Your task to perform on an android device: toggle wifi Image 0: 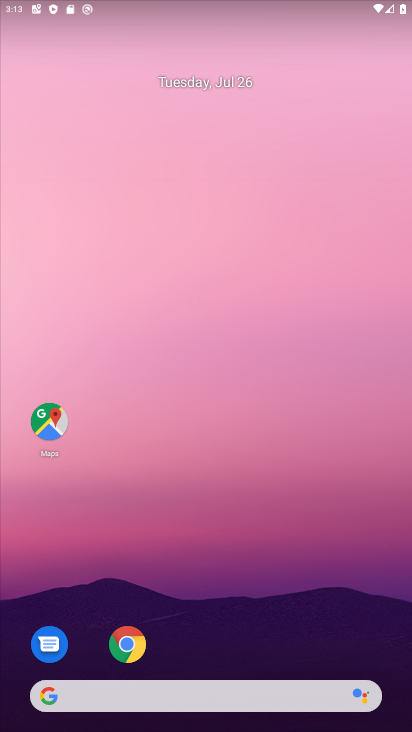
Step 0: drag from (209, 687) to (179, 232)
Your task to perform on an android device: toggle wifi Image 1: 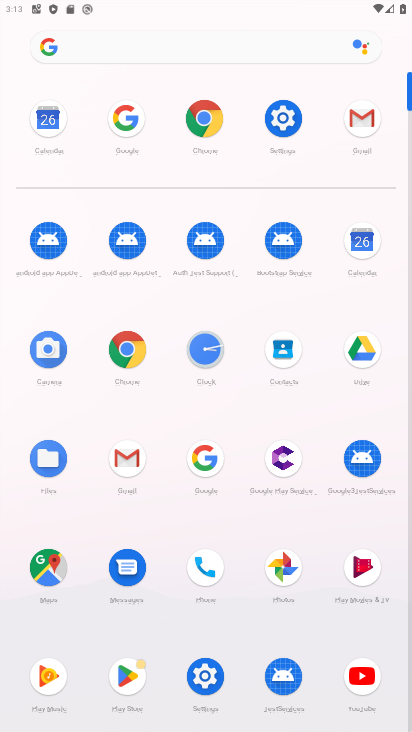
Step 1: click (278, 122)
Your task to perform on an android device: toggle wifi Image 2: 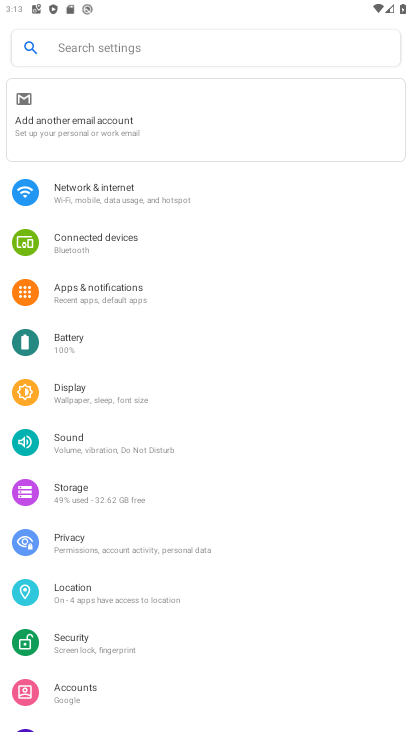
Step 2: click (85, 195)
Your task to perform on an android device: toggle wifi Image 3: 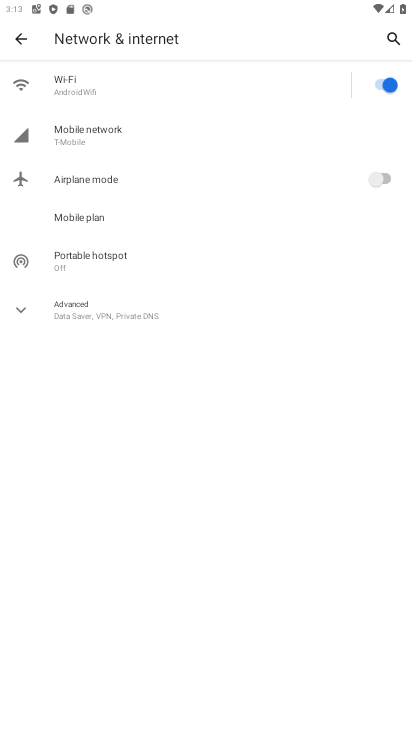
Step 3: click (78, 137)
Your task to perform on an android device: toggle wifi Image 4: 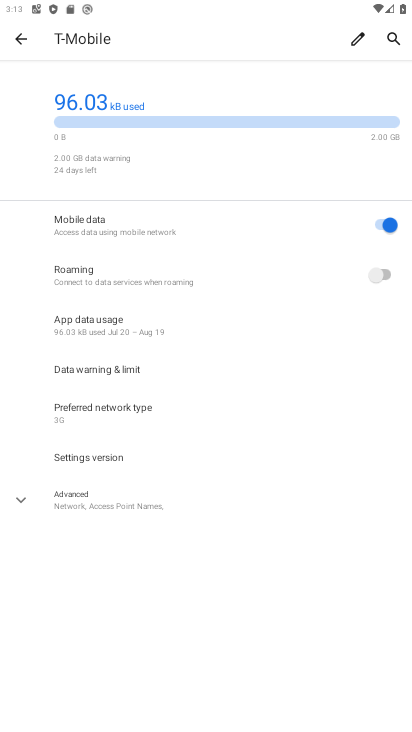
Step 4: click (11, 49)
Your task to perform on an android device: toggle wifi Image 5: 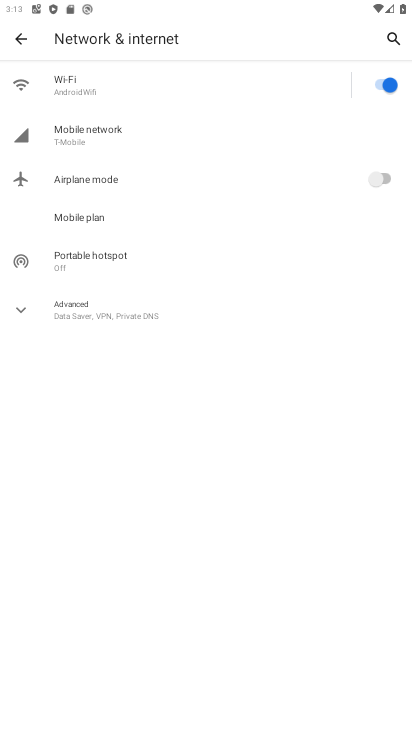
Step 5: click (122, 89)
Your task to perform on an android device: toggle wifi Image 6: 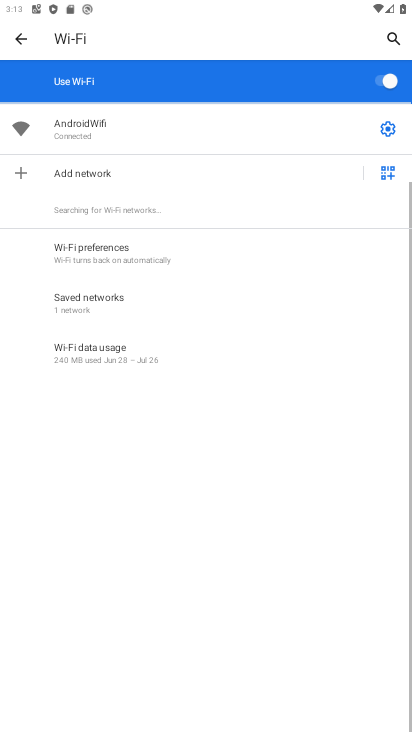
Step 6: click (389, 132)
Your task to perform on an android device: toggle wifi Image 7: 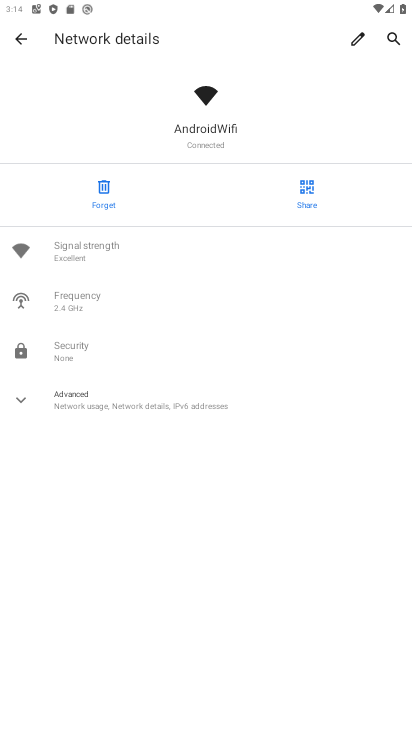
Step 7: click (13, 43)
Your task to perform on an android device: toggle wifi Image 8: 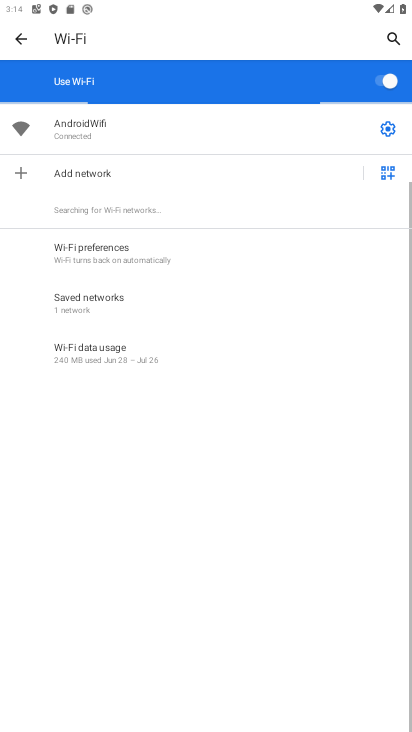
Step 8: click (373, 80)
Your task to perform on an android device: toggle wifi Image 9: 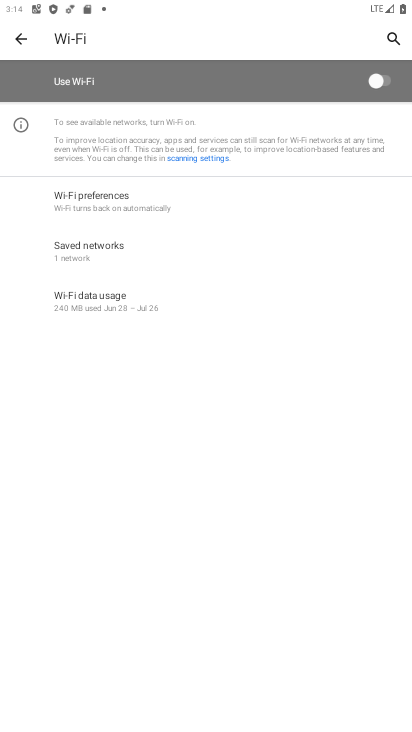
Step 9: task complete